Your task to perform on an android device: turn on translation in the chrome app Image 0: 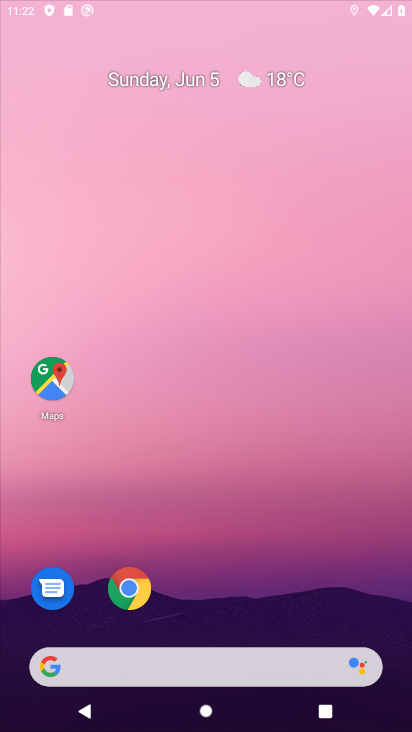
Step 0: click (59, 373)
Your task to perform on an android device: turn on translation in the chrome app Image 1: 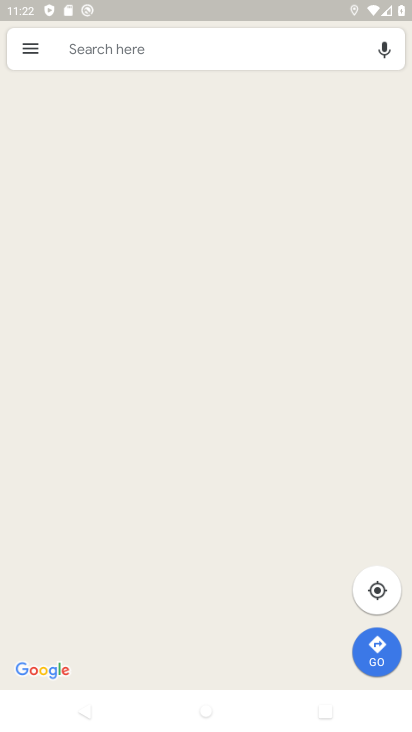
Step 1: press home button
Your task to perform on an android device: turn on translation in the chrome app Image 2: 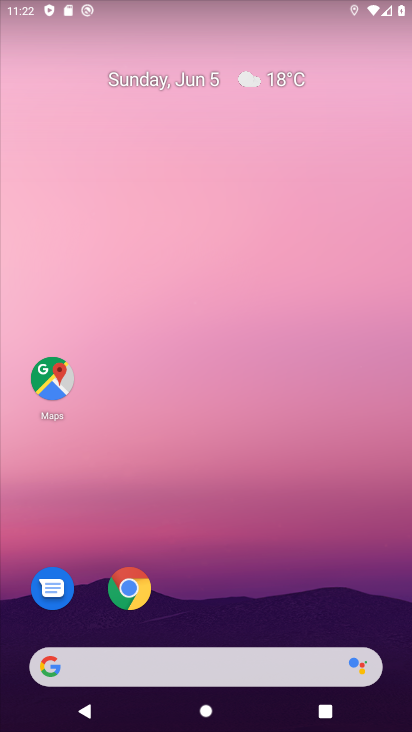
Step 2: click (140, 589)
Your task to perform on an android device: turn on translation in the chrome app Image 3: 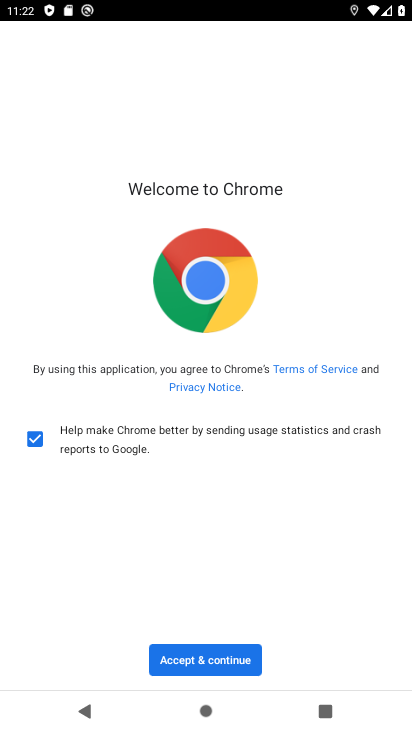
Step 3: click (198, 647)
Your task to perform on an android device: turn on translation in the chrome app Image 4: 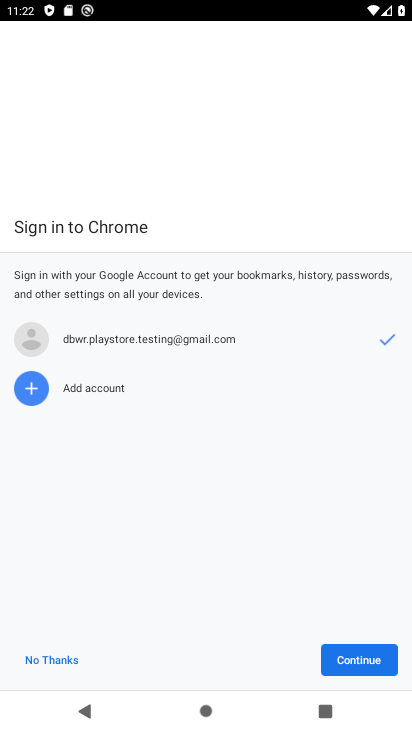
Step 4: click (357, 663)
Your task to perform on an android device: turn on translation in the chrome app Image 5: 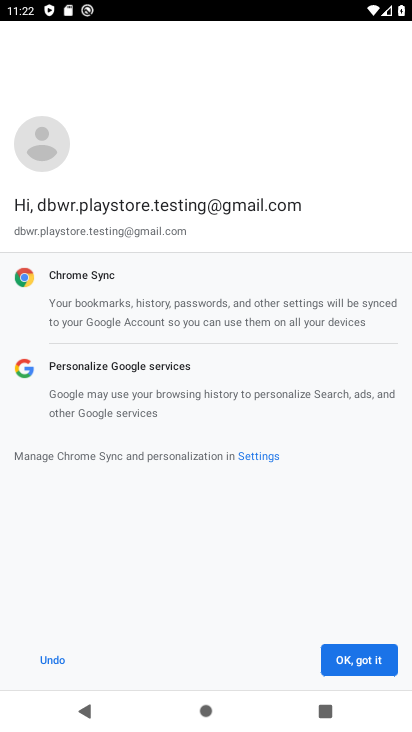
Step 5: click (385, 662)
Your task to perform on an android device: turn on translation in the chrome app Image 6: 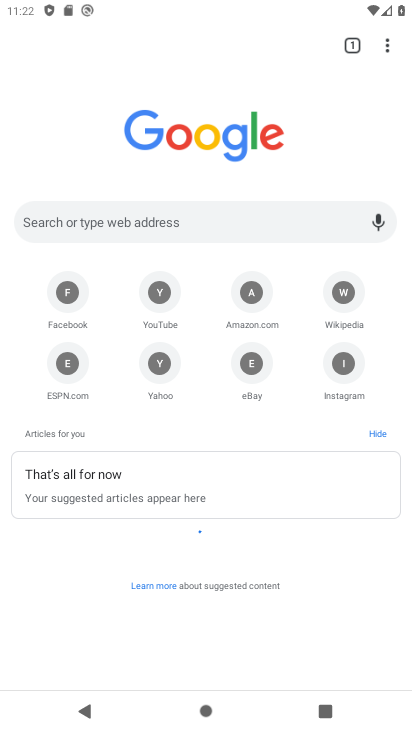
Step 6: click (391, 46)
Your task to perform on an android device: turn on translation in the chrome app Image 7: 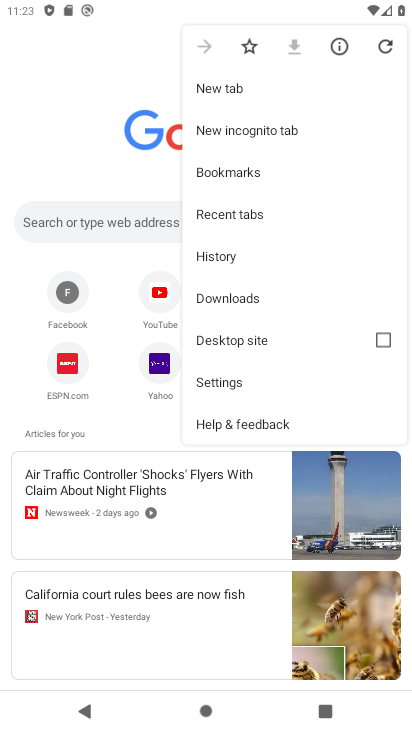
Step 7: click (306, 379)
Your task to perform on an android device: turn on translation in the chrome app Image 8: 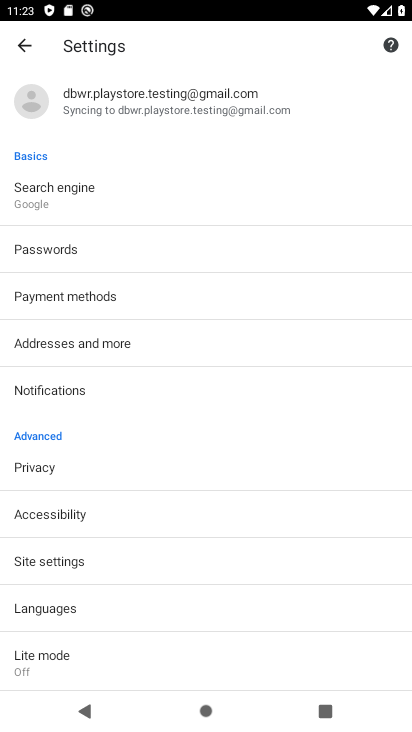
Step 8: click (170, 613)
Your task to perform on an android device: turn on translation in the chrome app Image 9: 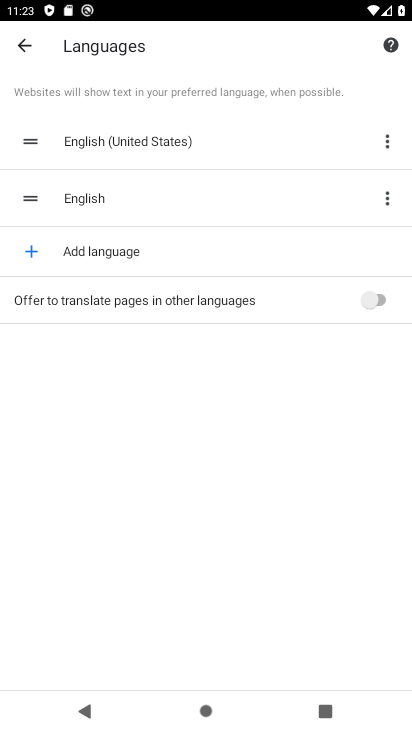
Step 9: click (378, 292)
Your task to perform on an android device: turn on translation in the chrome app Image 10: 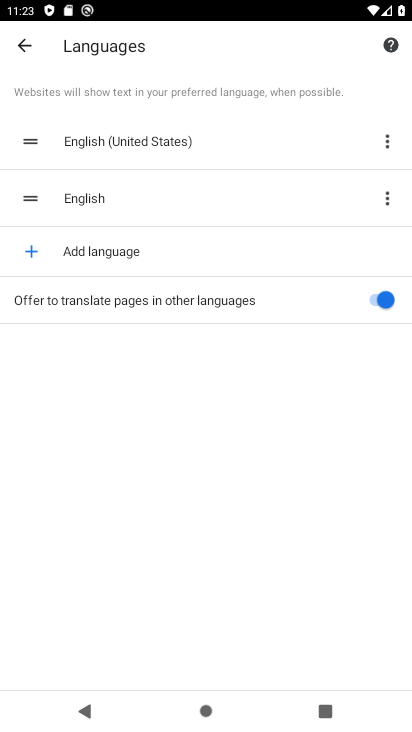
Step 10: task complete